Your task to perform on an android device: Open calendar and show me the third week of next month Image 0: 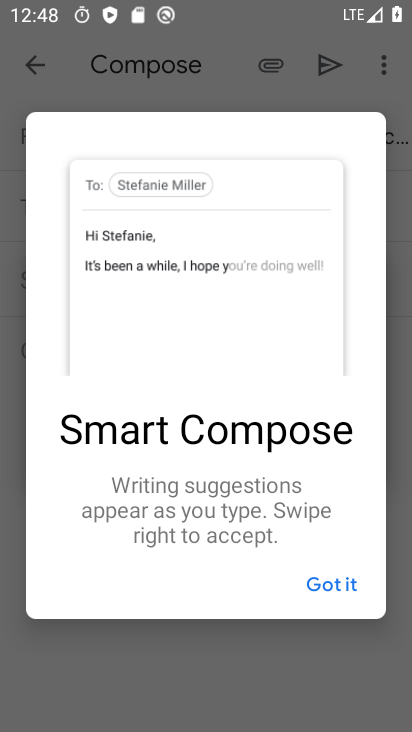
Step 0: press home button
Your task to perform on an android device: Open calendar and show me the third week of next month Image 1: 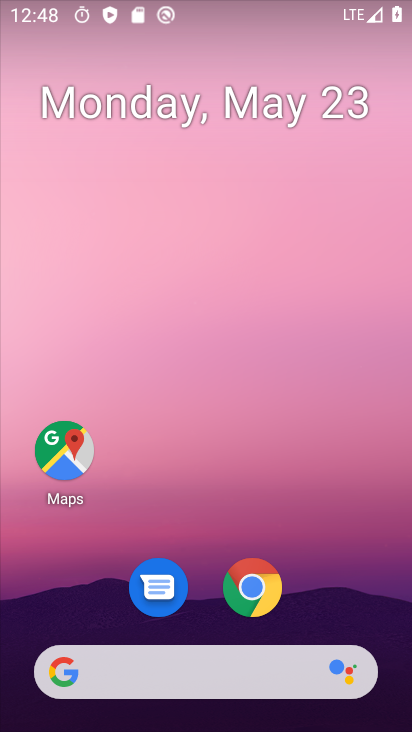
Step 1: drag from (182, 577) to (262, 63)
Your task to perform on an android device: Open calendar and show me the third week of next month Image 2: 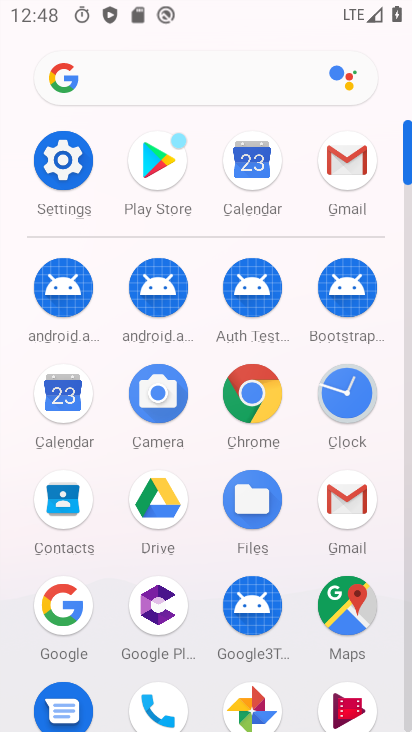
Step 2: click (69, 414)
Your task to perform on an android device: Open calendar and show me the third week of next month Image 3: 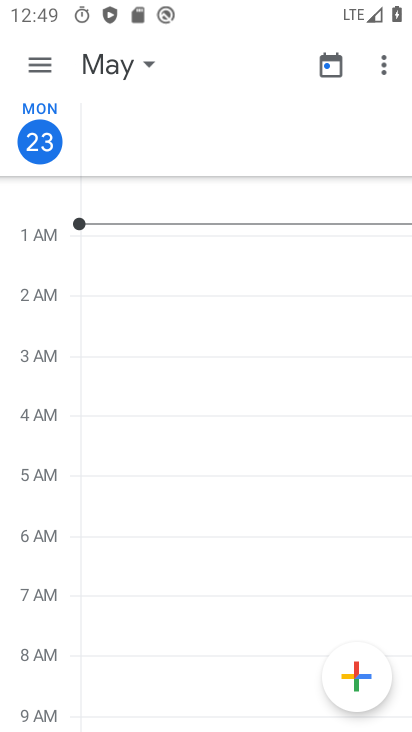
Step 3: click (55, 52)
Your task to perform on an android device: Open calendar and show me the third week of next month Image 4: 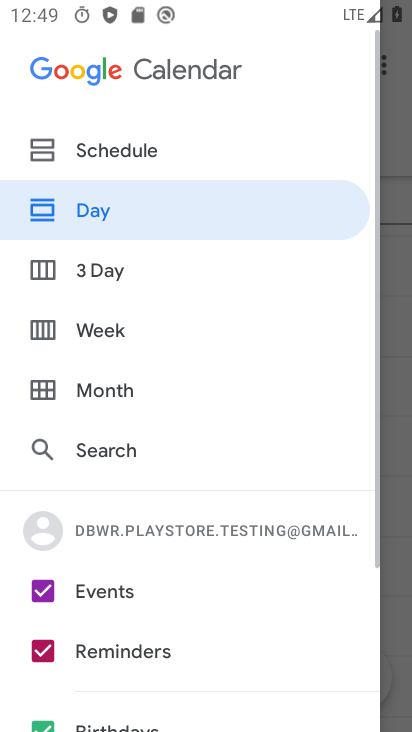
Step 4: click (99, 146)
Your task to perform on an android device: Open calendar and show me the third week of next month Image 5: 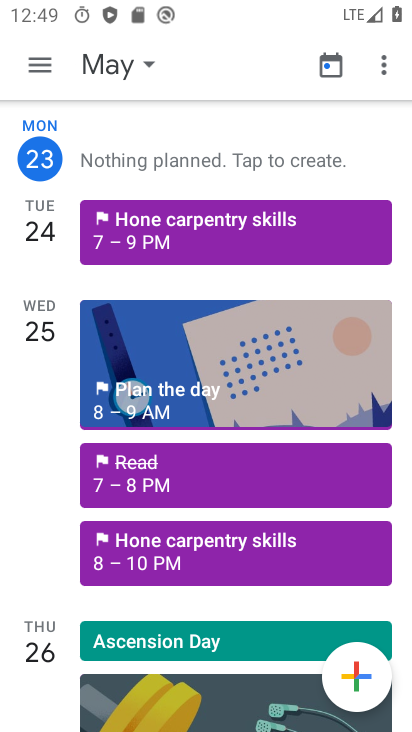
Step 5: click (116, 60)
Your task to perform on an android device: Open calendar and show me the third week of next month Image 6: 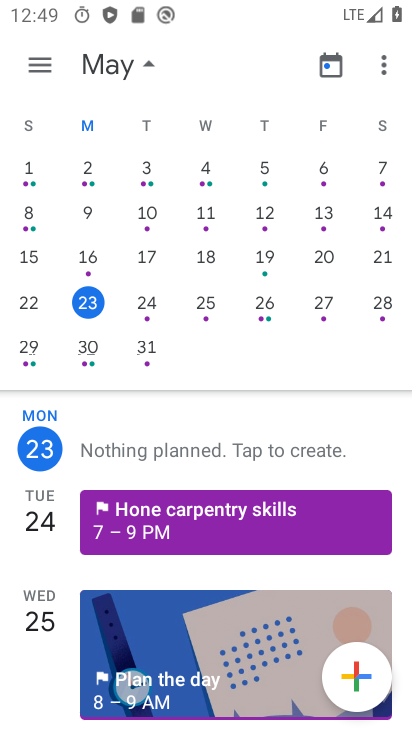
Step 6: drag from (359, 224) to (63, 207)
Your task to perform on an android device: Open calendar and show me the third week of next month Image 7: 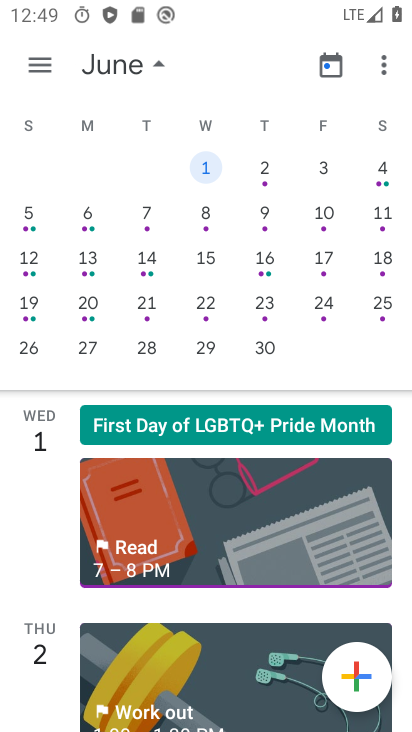
Step 7: click (92, 259)
Your task to perform on an android device: Open calendar and show me the third week of next month Image 8: 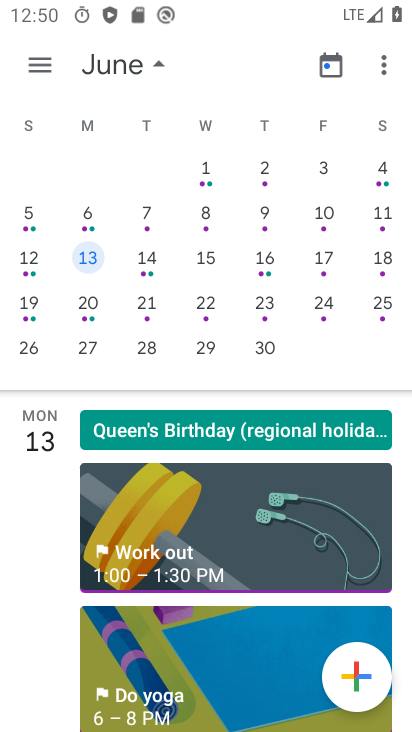
Step 8: click (95, 249)
Your task to perform on an android device: Open calendar and show me the third week of next month Image 9: 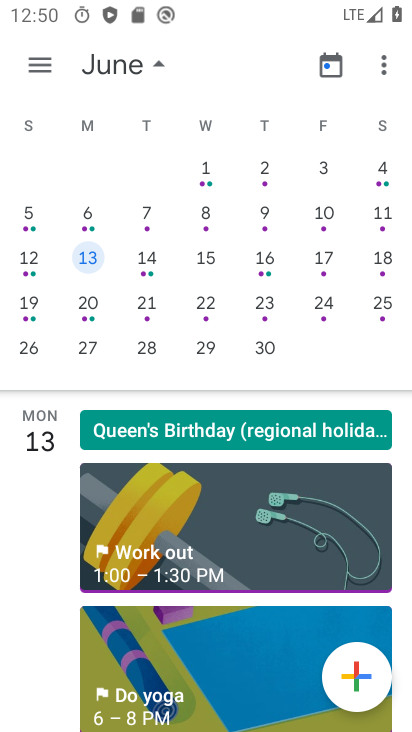
Step 9: task complete